Your task to perform on an android device: allow notifications from all sites in the chrome app Image 0: 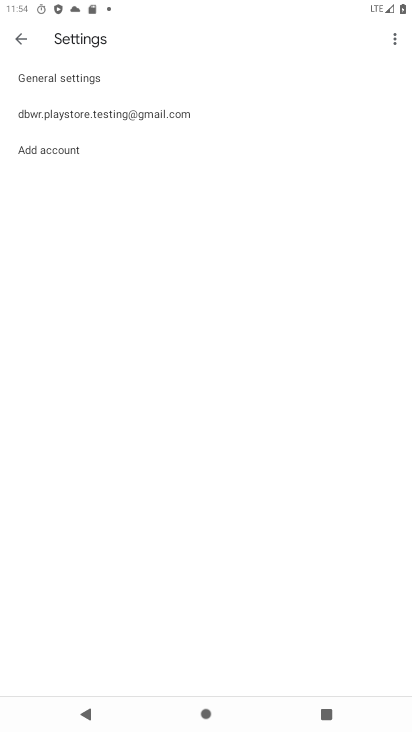
Step 0: press home button
Your task to perform on an android device: allow notifications from all sites in the chrome app Image 1: 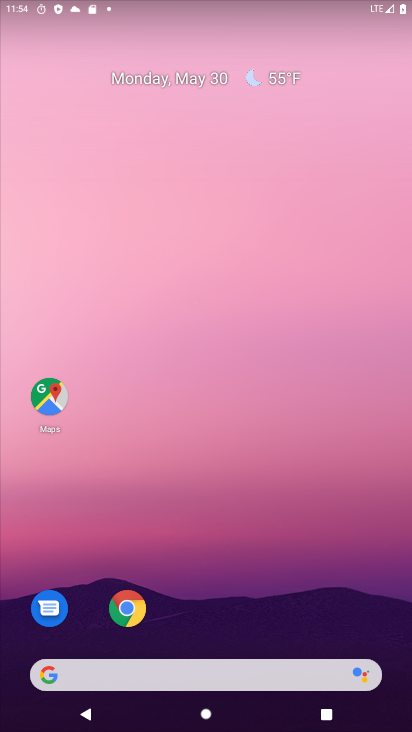
Step 1: click (132, 610)
Your task to perform on an android device: allow notifications from all sites in the chrome app Image 2: 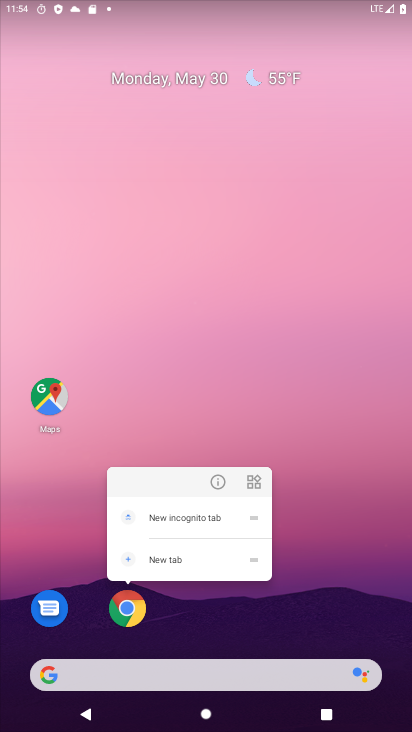
Step 2: click (121, 613)
Your task to perform on an android device: allow notifications from all sites in the chrome app Image 3: 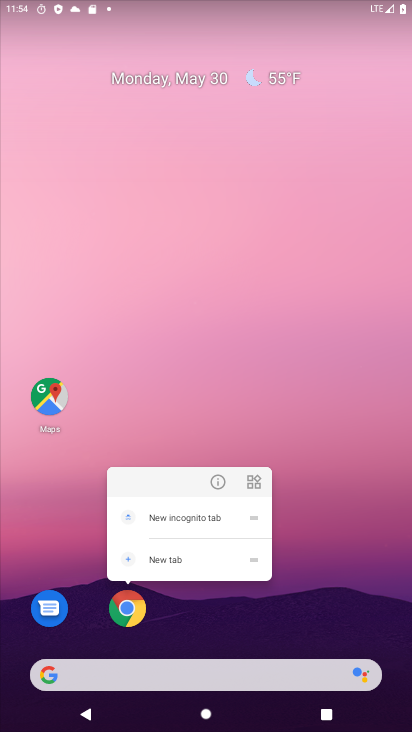
Step 3: click (137, 607)
Your task to perform on an android device: allow notifications from all sites in the chrome app Image 4: 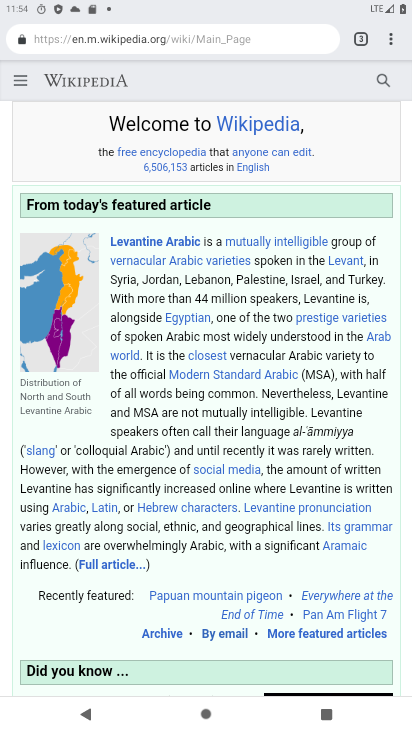
Step 4: drag from (389, 36) to (265, 469)
Your task to perform on an android device: allow notifications from all sites in the chrome app Image 5: 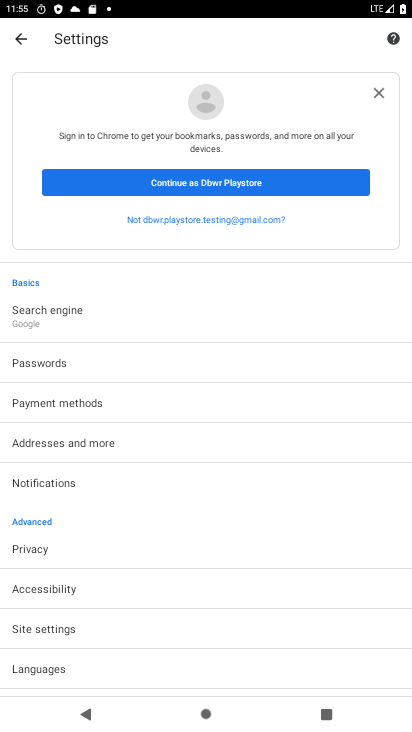
Step 5: click (65, 631)
Your task to perform on an android device: allow notifications from all sites in the chrome app Image 6: 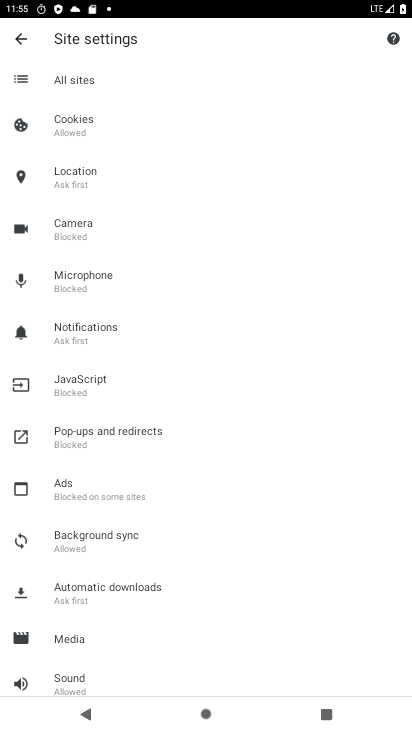
Step 6: click (77, 339)
Your task to perform on an android device: allow notifications from all sites in the chrome app Image 7: 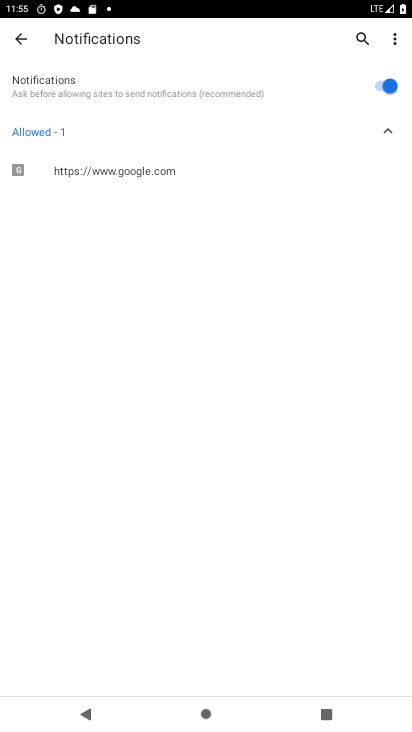
Step 7: task complete